Your task to perform on an android device: Open the stopwatch Image 0: 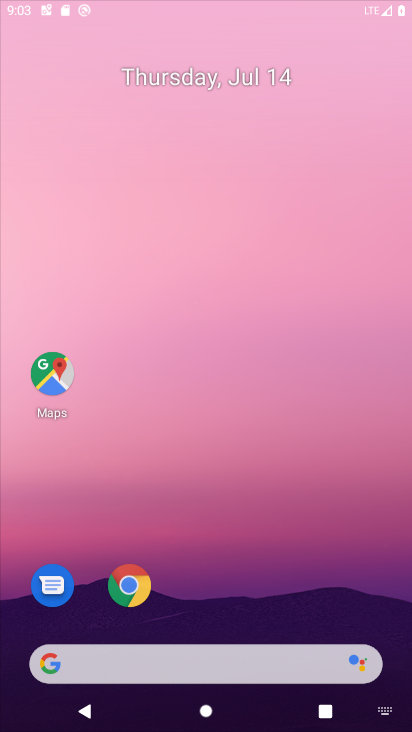
Step 0: drag from (259, 155) to (259, 57)
Your task to perform on an android device: Open the stopwatch Image 1: 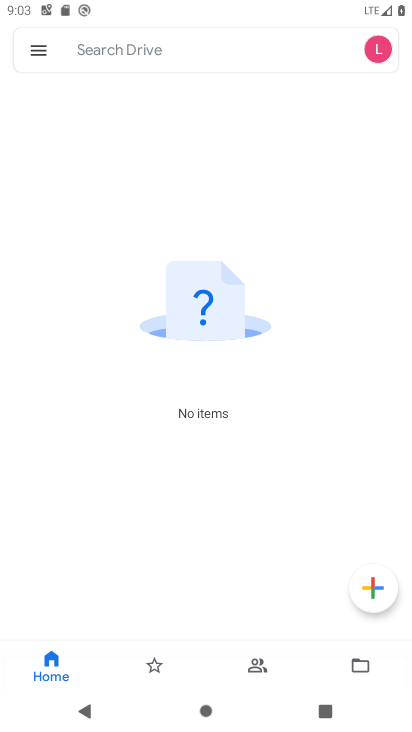
Step 1: press home button
Your task to perform on an android device: Open the stopwatch Image 2: 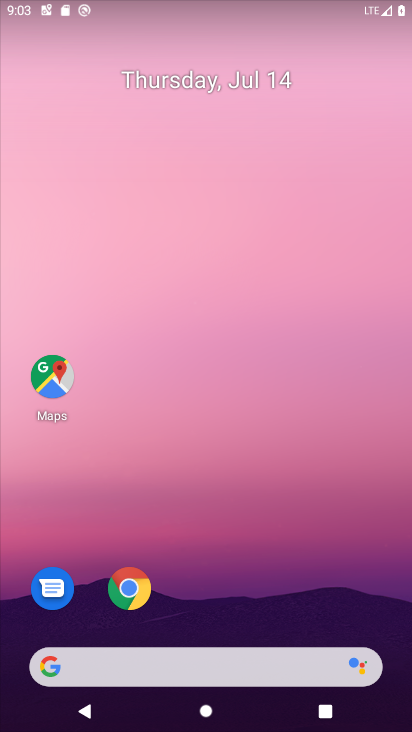
Step 2: drag from (275, 554) to (275, 73)
Your task to perform on an android device: Open the stopwatch Image 3: 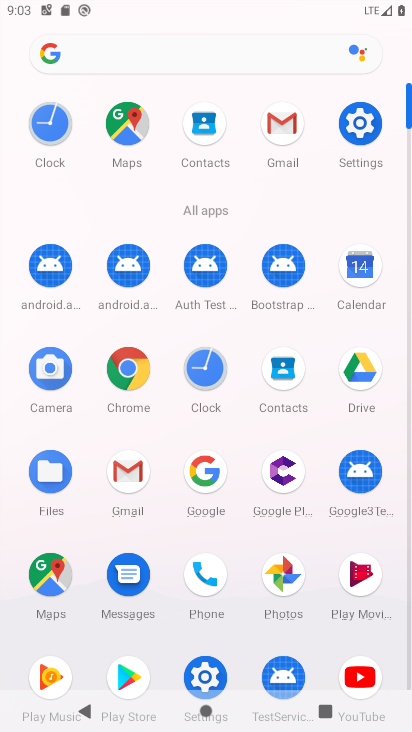
Step 3: click (216, 362)
Your task to perform on an android device: Open the stopwatch Image 4: 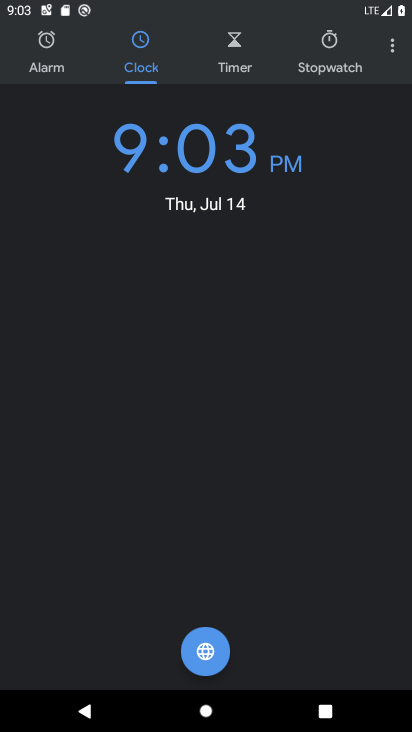
Step 4: click (327, 44)
Your task to perform on an android device: Open the stopwatch Image 5: 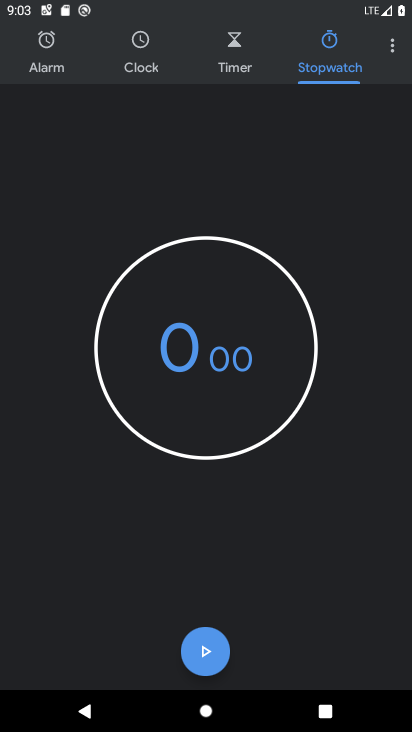
Step 5: task complete